Your task to perform on an android device: Open the stopwatch Image 0: 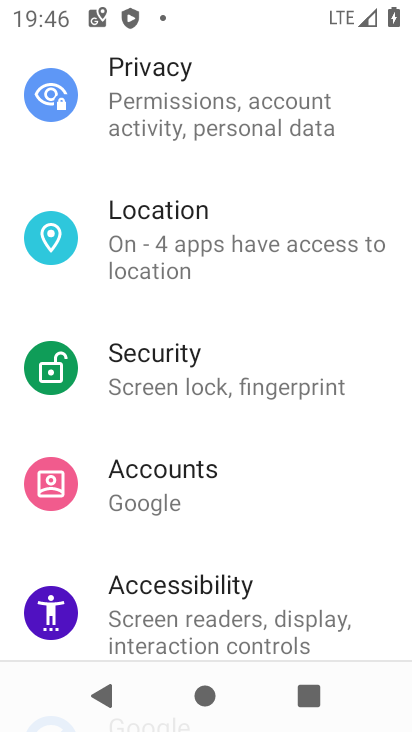
Step 0: press home button
Your task to perform on an android device: Open the stopwatch Image 1: 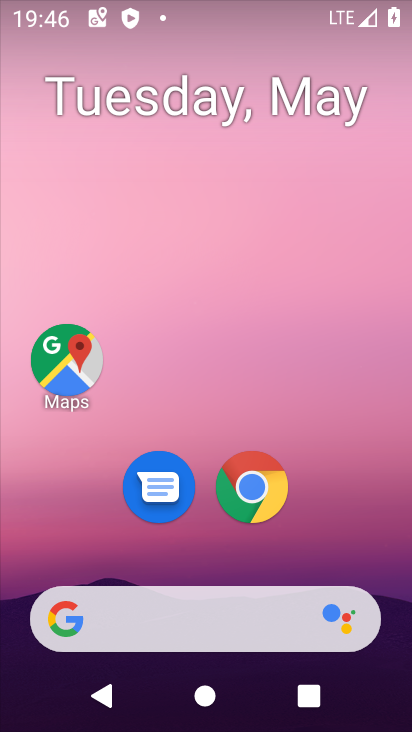
Step 1: click (244, 162)
Your task to perform on an android device: Open the stopwatch Image 2: 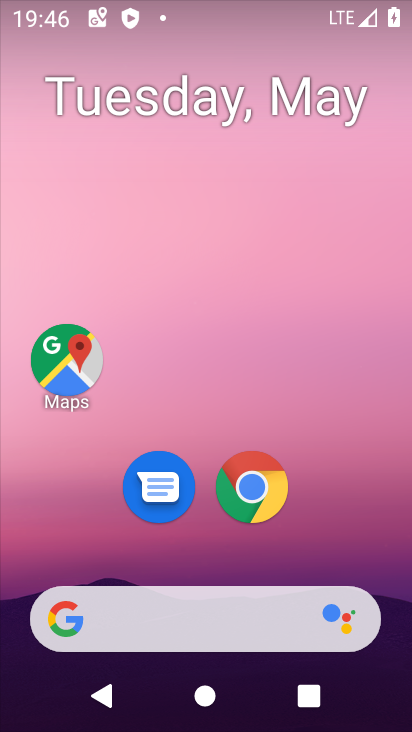
Step 2: drag from (331, 489) to (216, 51)
Your task to perform on an android device: Open the stopwatch Image 3: 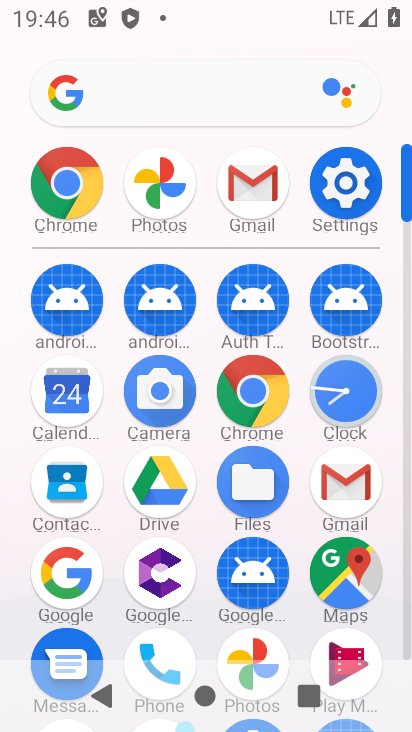
Step 3: click (351, 386)
Your task to perform on an android device: Open the stopwatch Image 4: 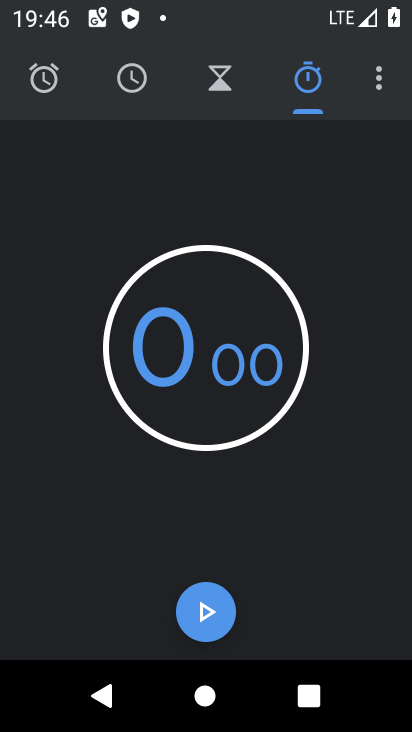
Step 4: task complete